Your task to perform on an android device: Open Yahoo.com Image 0: 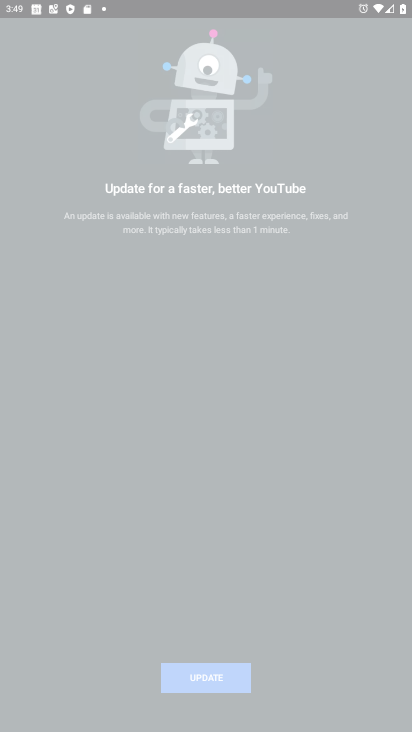
Step 0: drag from (261, 644) to (59, 17)
Your task to perform on an android device: Open Yahoo.com Image 1: 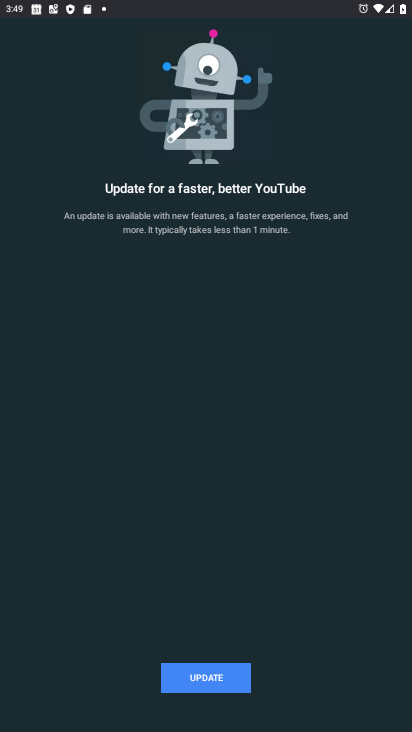
Step 1: press home button
Your task to perform on an android device: Open Yahoo.com Image 2: 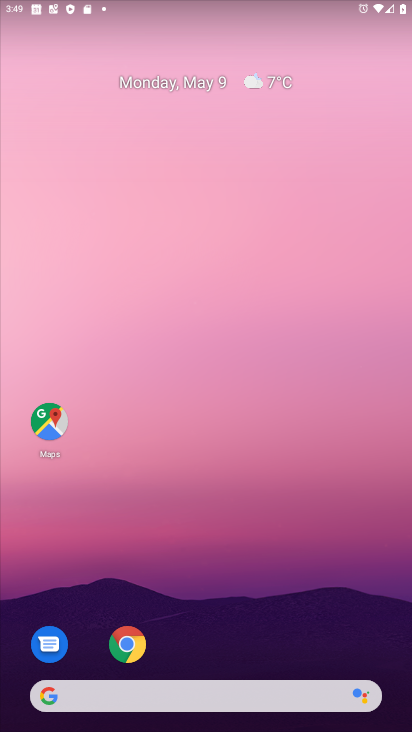
Step 2: drag from (210, 596) to (47, 53)
Your task to perform on an android device: Open Yahoo.com Image 3: 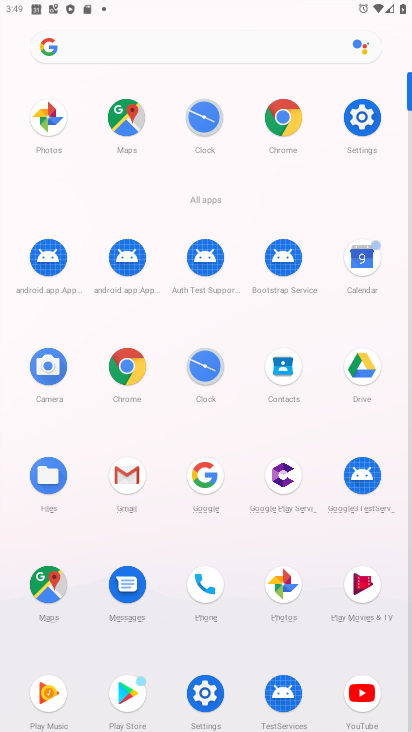
Step 3: click (279, 119)
Your task to perform on an android device: Open Yahoo.com Image 4: 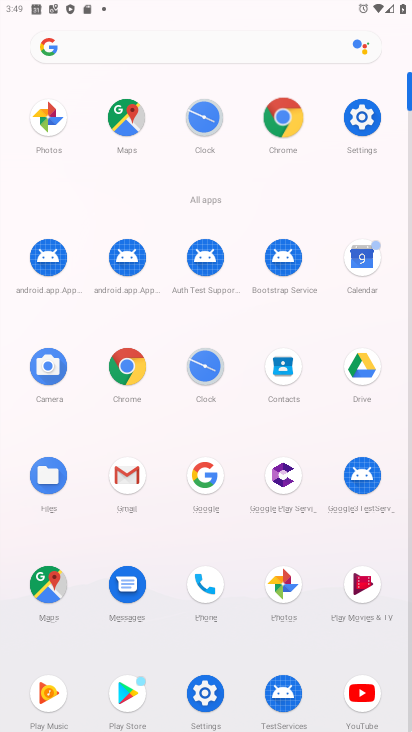
Step 4: click (279, 118)
Your task to perform on an android device: Open Yahoo.com Image 5: 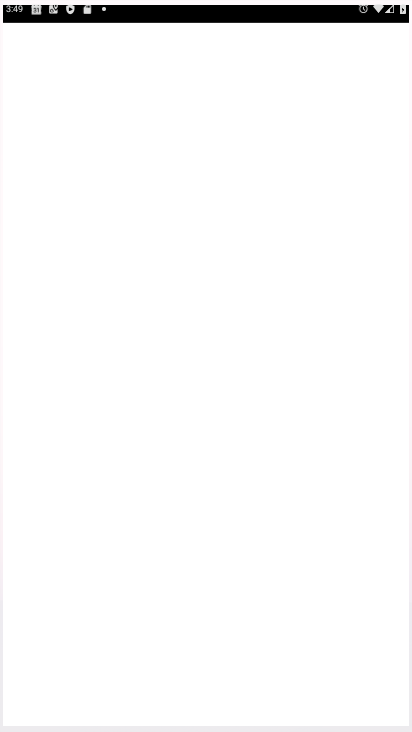
Step 5: click (280, 117)
Your task to perform on an android device: Open Yahoo.com Image 6: 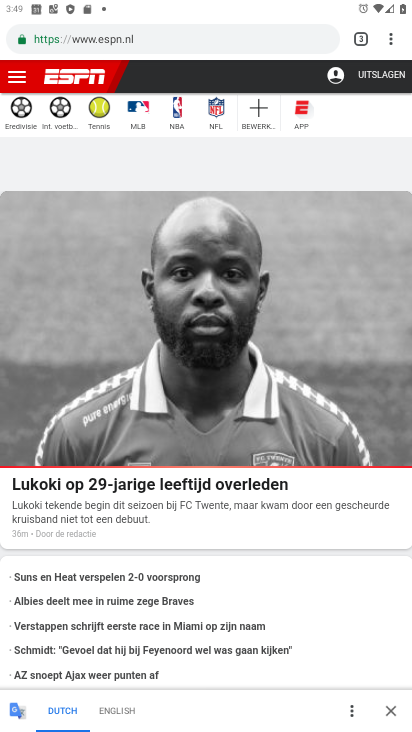
Step 6: click (394, 30)
Your task to perform on an android device: Open Yahoo.com Image 7: 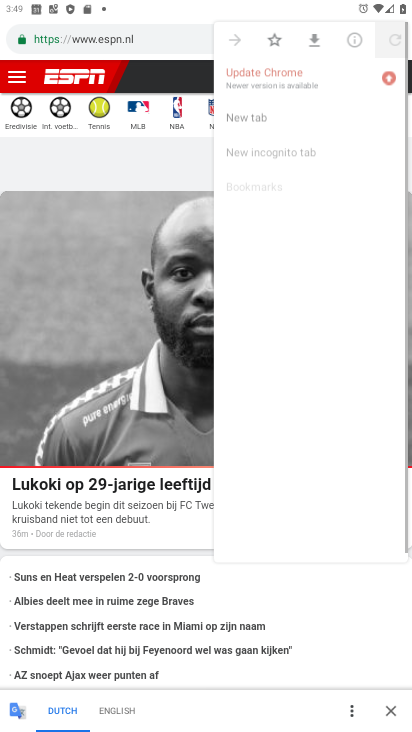
Step 7: click (388, 49)
Your task to perform on an android device: Open Yahoo.com Image 8: 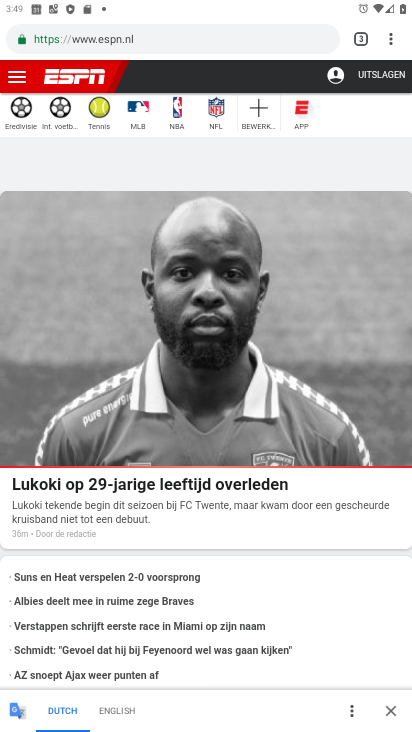
Step 8: drag from (393, 40) to (263, 504)
Your task to perform on an android device: Open Yahoo.com Image 9: 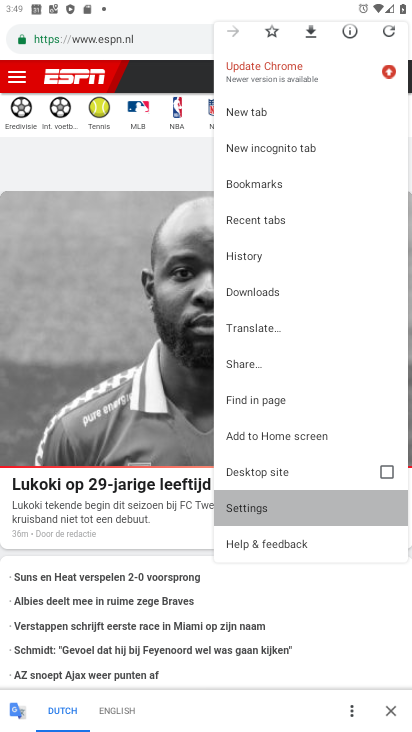
Step 9: click (263, 504)
Your task to perform on an android device: Open Yahoo.com Image 10: 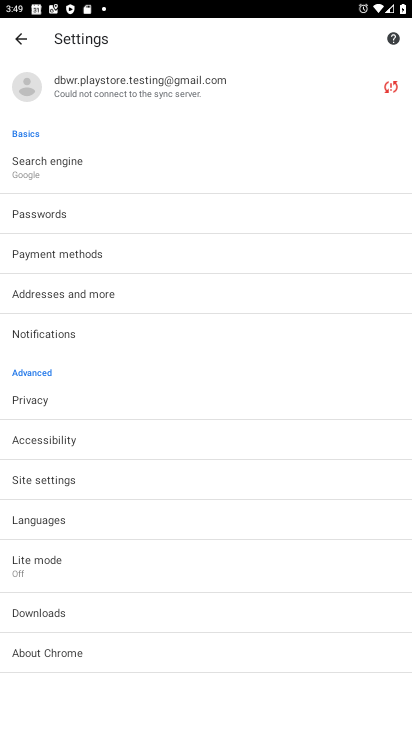
Step 10: click (16, 38)
Your task to perform on an android device: Open Yahoo.com Image 11: 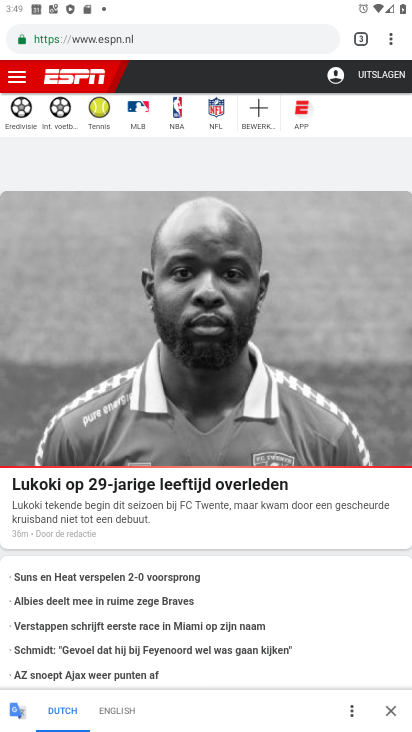
Step 11: drag from (393, 45) to (241, 122)
Your task to perform on an android device: Open Yahoo.com Image 12: 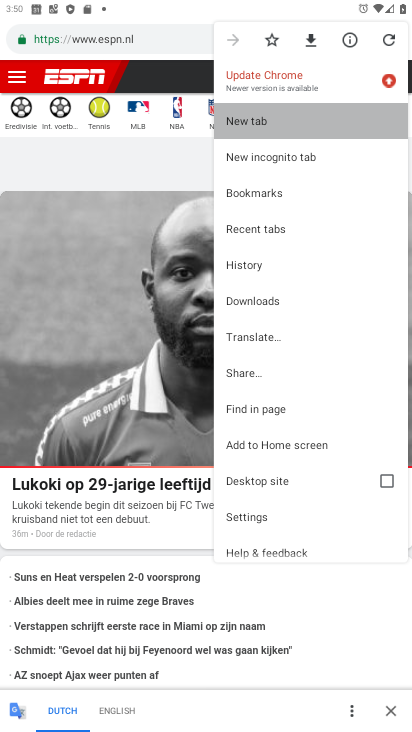
Step 12: click (245, 121)
Your task to perform on an android device: Open Yahoo.com Image 13: 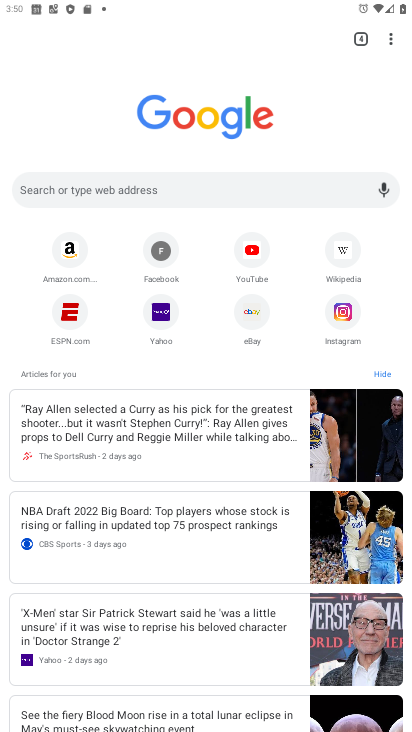
Step 13: click (162, 313)
Your task to perform on an android device: Open Yahoo.com Image 14: 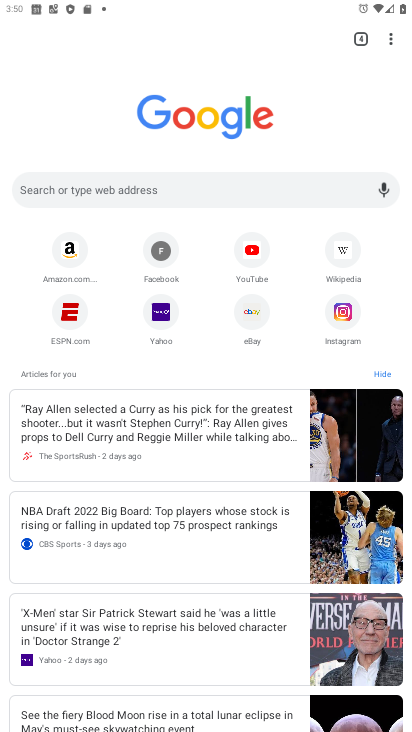
Step 14: click (162, 313)
Your task to perform on an android device: Open Yahoo.com Image 15: 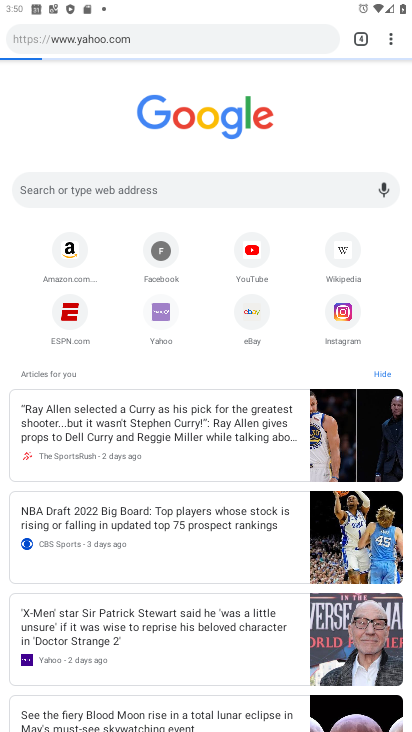
Step 15: click (155, 302)
Your task to perform on an android device: Open Yahoo.com Image 16: 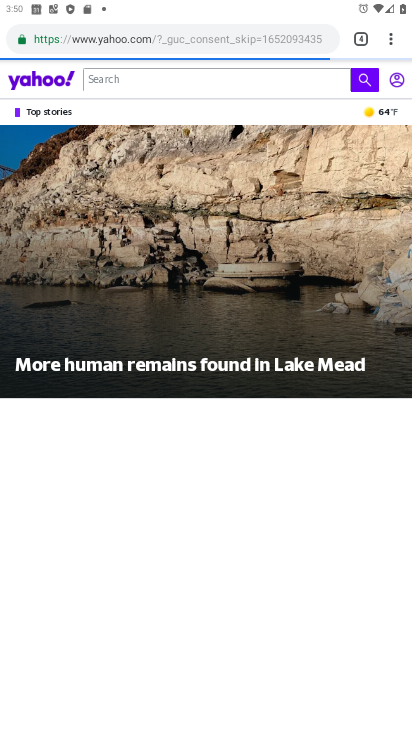
Step 16: task complete